Your task to perform on an android device: add a contact in the contacts app Image 0: 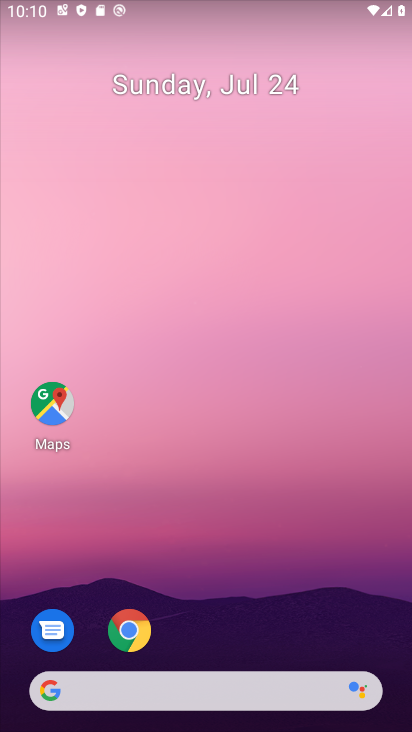
Step 0: drag from (233, 534) to (233, 184)
Your task to perform on an android device: add a contact in the contacts app Image 1: 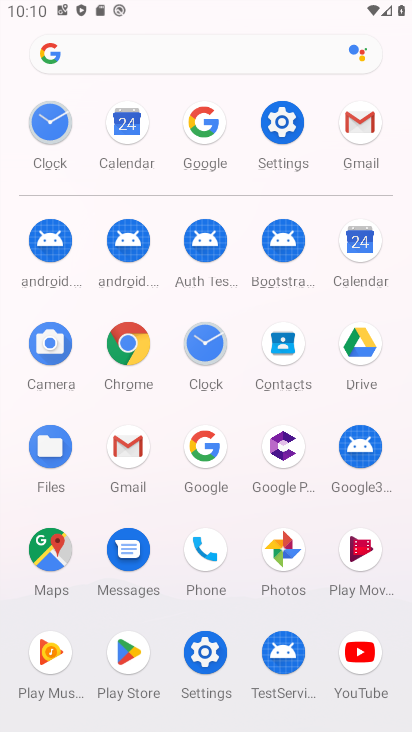
Step 1: click (287, 350)
Your task to perform on an android device: add a contact in the contacts app Image 2: 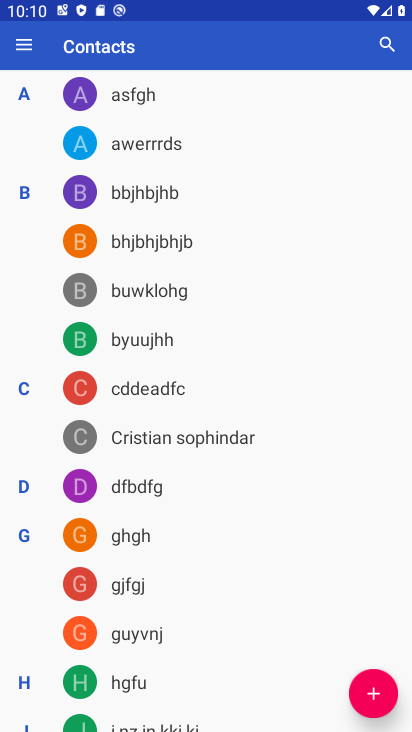
Step 2: click (364, 695)
Your task to perform on an android device: add a contact in the contacts app Image 3: 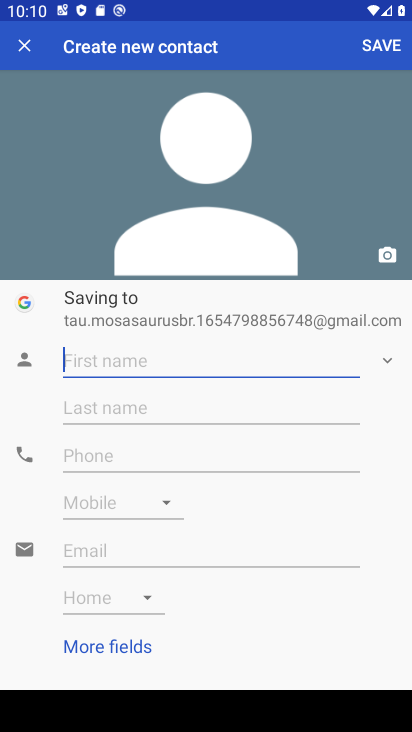
Step 3: click (144, 347)
Your task to perform on an android device: add a contact in the contacts app Image 4: 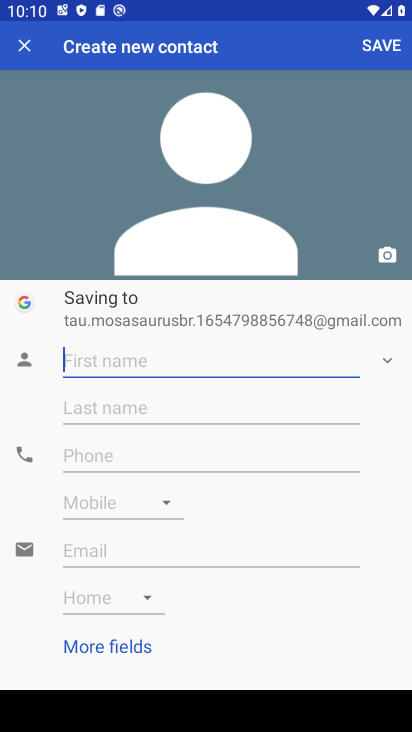
Step 4: type "dgfdhfgh"
Your task to perform on an android device: add a contact in the contacts app Image 5: 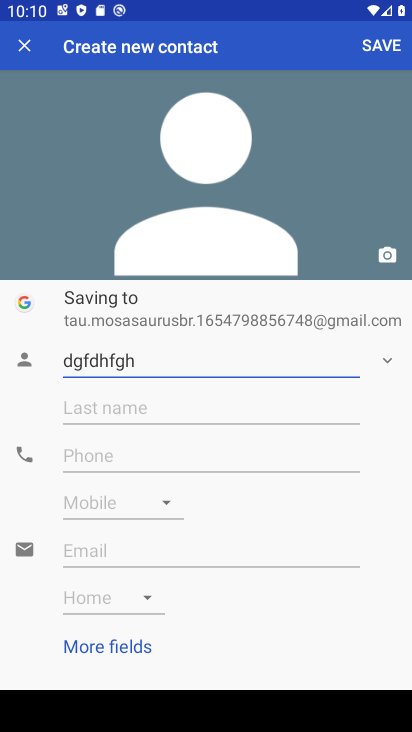
Step 5: click (116, 460)
Your task to perform on an android device: add a contact in the contacts app Image 6: 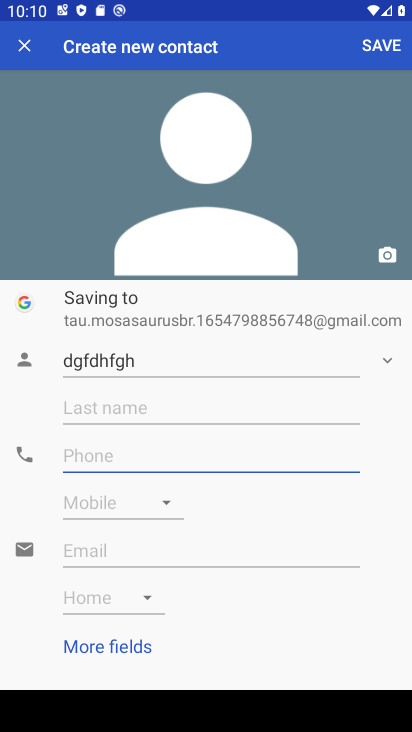
Step 6: type "8658567576"
Your task to perform on an android device: add a contact in the contacts app Image 7: 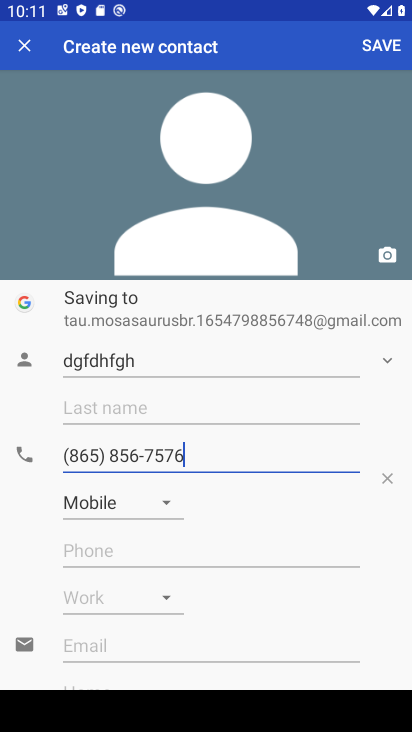
Step 7: click (360, 53)
Your task to perform on an android device: add a contact in the contacts app Image 8: 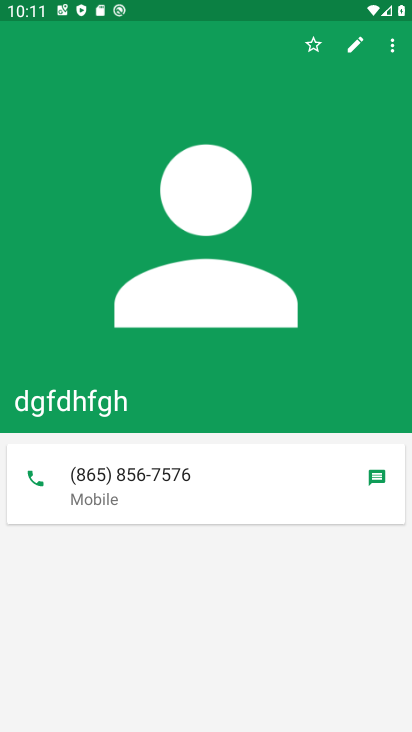
Step 8: task complete